Your task to perform on an android device: Search for pizza restaurants on Maps Image 0: 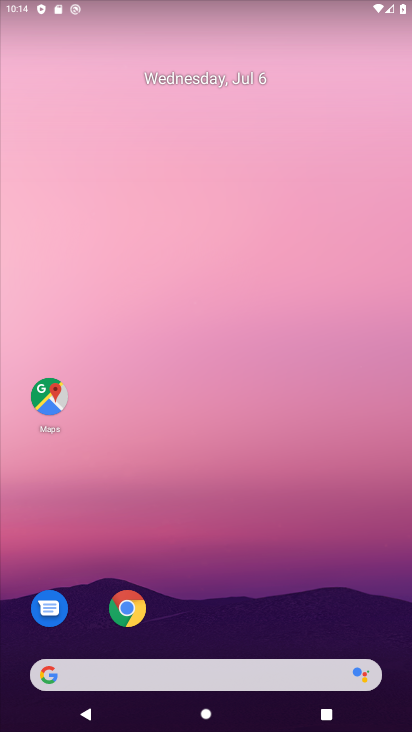
Step 0: click (48, 404)
Your task to perform on an android device: Search for pizza restaurants on Maps Image 1: 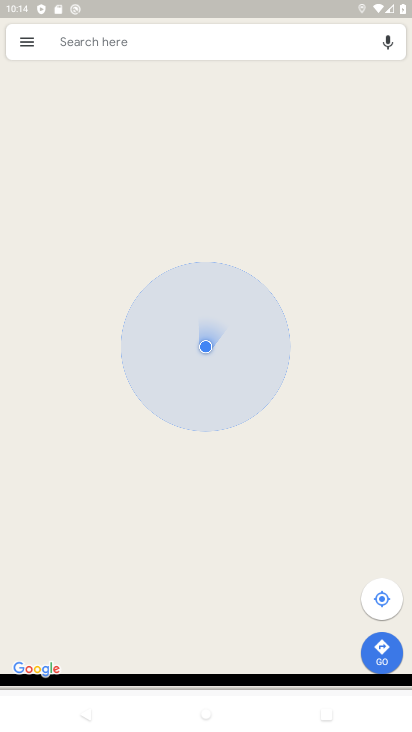
Step 1: click (147, 57)
Your task to perform on an android device: Search for pizza restaurants on Maps Image 2: 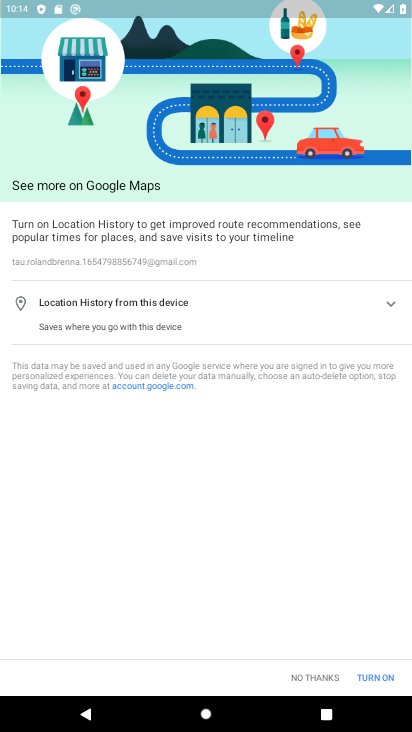
Step 2: click (374, 679)
Your task to perform on an android device: Search for pizza restaurants on Maps Image 3: 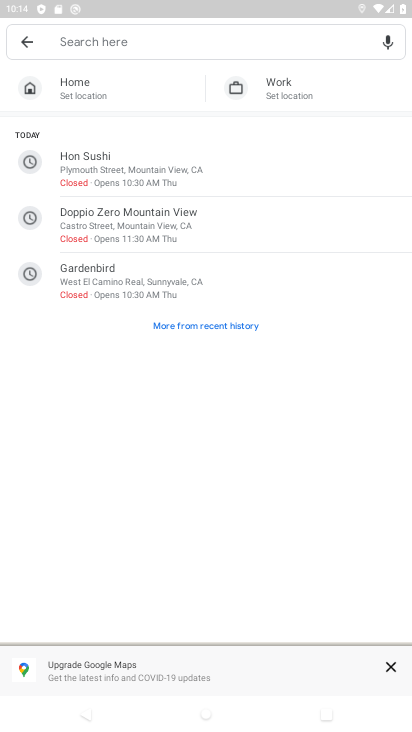
Step 3: click (123, 40)
Your task to perform on an android device: Search for pizza restaurants on Maps Image 4: 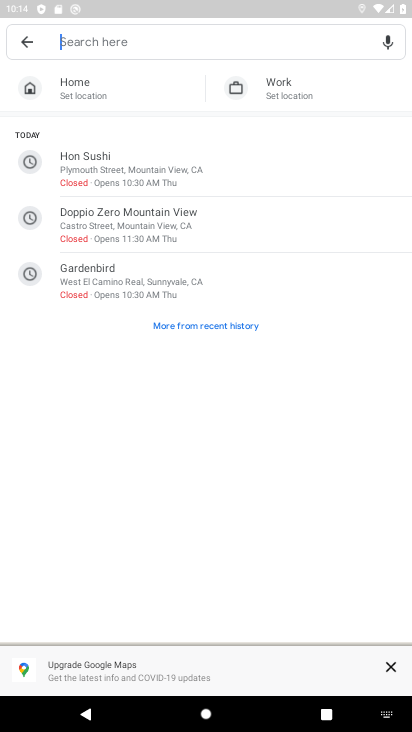
Step 4: click (149, 33)
Your task to perform on an android device: Search for pizza restaurants on Maps Image 5: 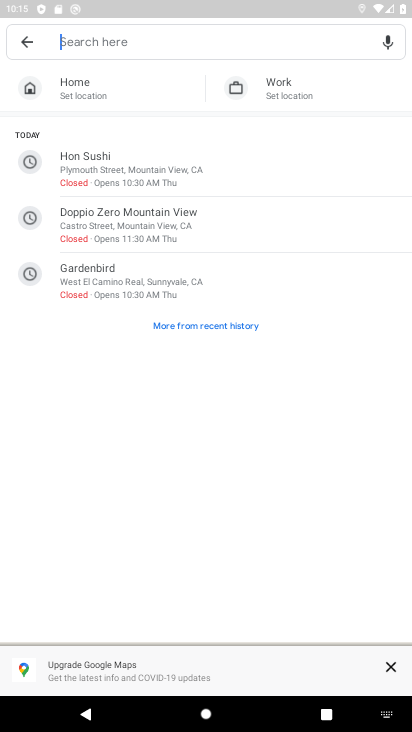
Step 5: task complete